Your task to perform on an android device: Search for seafood restaurants on Google Maps Image 0: 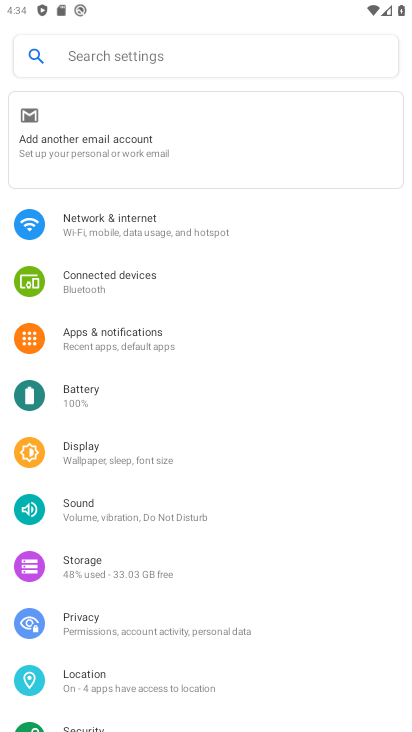
Step 0: press home button
Your task to perform on an android device: Search for seafood restaurants on Google Maps Image 1: 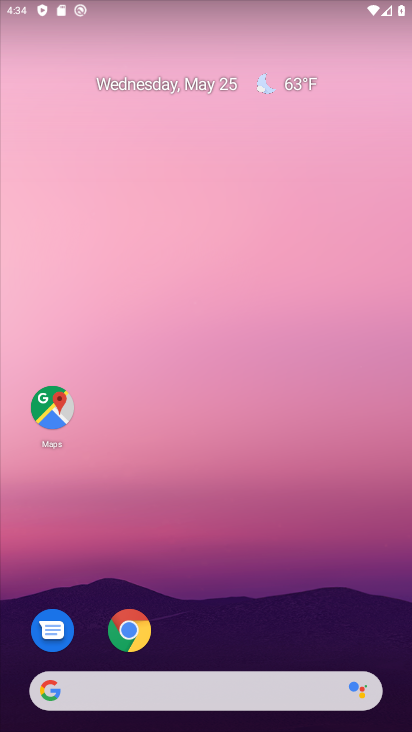
Step 1: click (50, 392)
Your task to perform on an android device: Search for seafood restaurants on Google Maps Image 2: 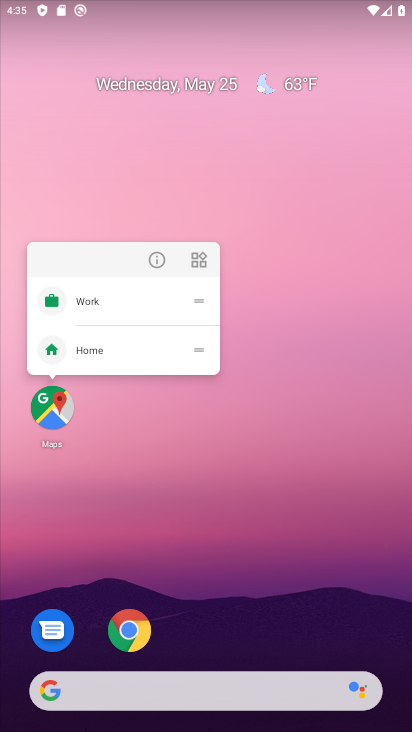
Step 2: click (50, 405)
Your task to perform on an android device: Search for seafood restaurants on Google Maps Image 3: 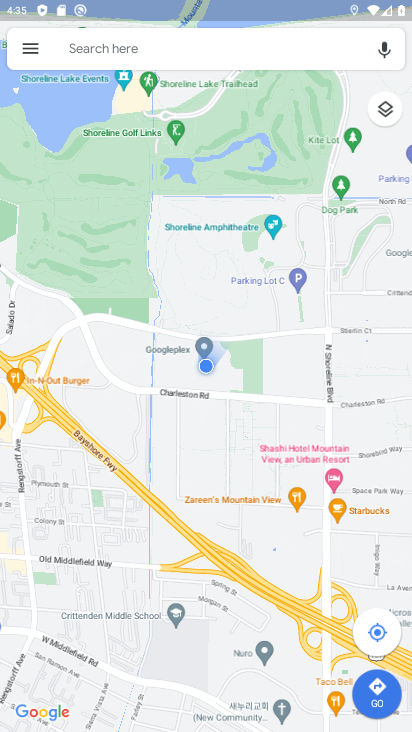
Step 3: click (130, 52)
Your task to perform on an android device: Search for seafood restaurants on Google Maps Image 4: 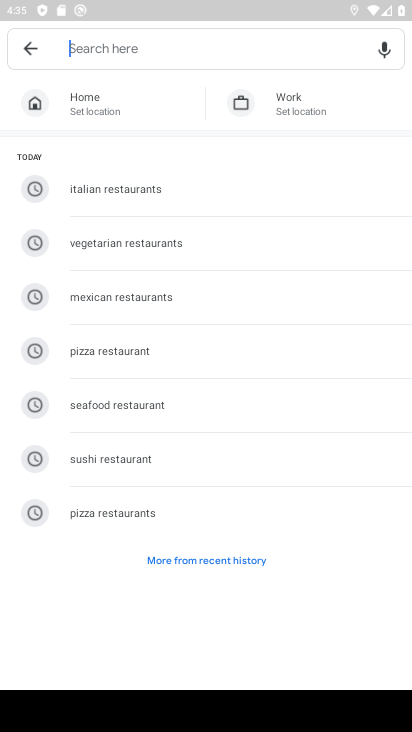
Step 4: click (121, 417)
Your task to perform on an android device: Search for seafood restaurants on Google Maps Image 5: 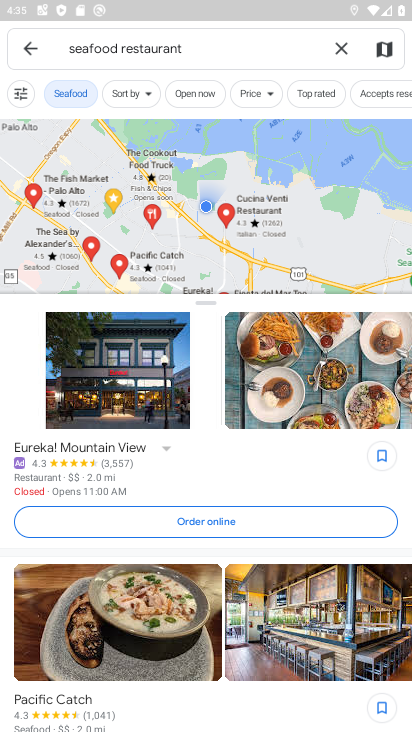
Step 5: task complete